Your task to perform on an android device: Open wifi settings Image 0: 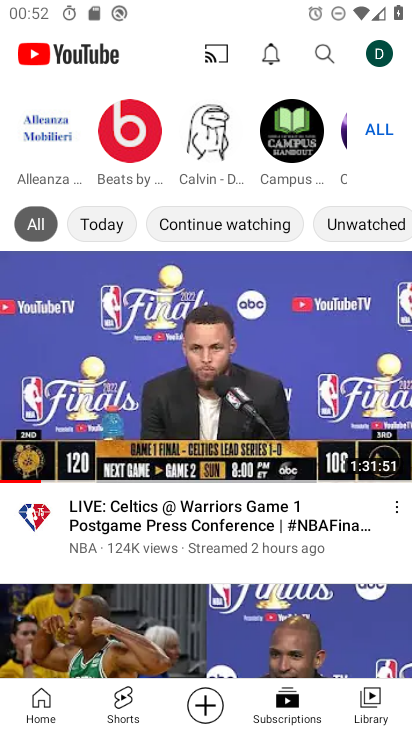
Step 0: press home button
Your task to perform on an android device: Open wifi settings Image 1: 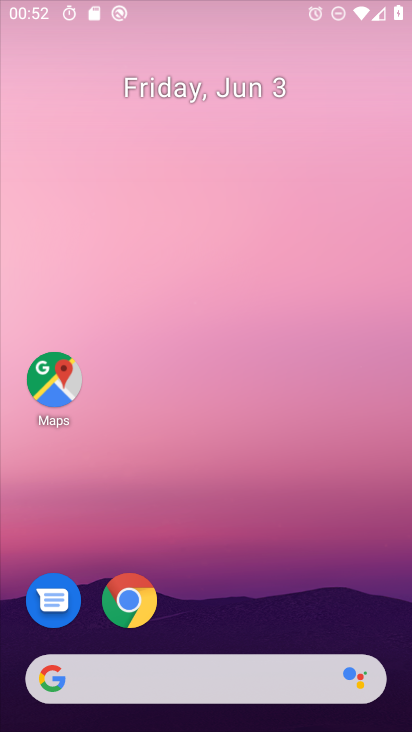
Step 1: drag from (190, 491) to (181, 89)
Your task to perform on an android device: Open wifi settings Image 2: 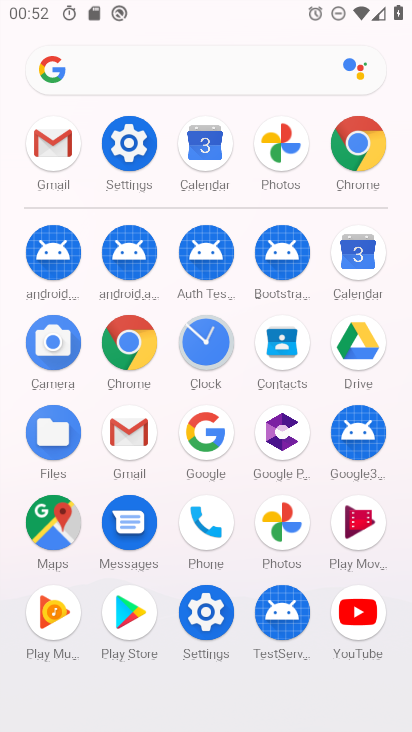
Step 2: click (129, 145)
Your task to perform on an android device: Open wifi settings Image 3: 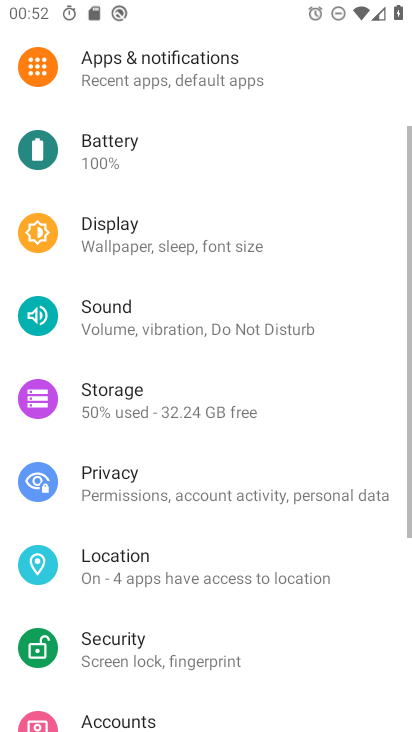
Step 3: drag from (129, 145) to (151, 614)
Your task to perform on an android device: Open wifi settings Image 4: 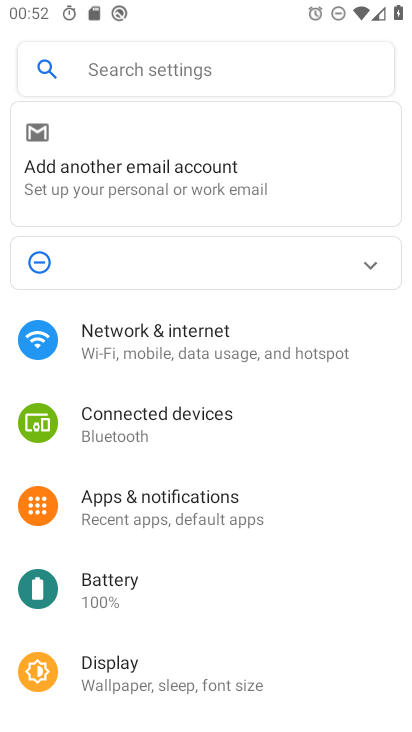
Step 4: click (204, 330)
Your task to perform on an android device: Open wifi settings Image 5: 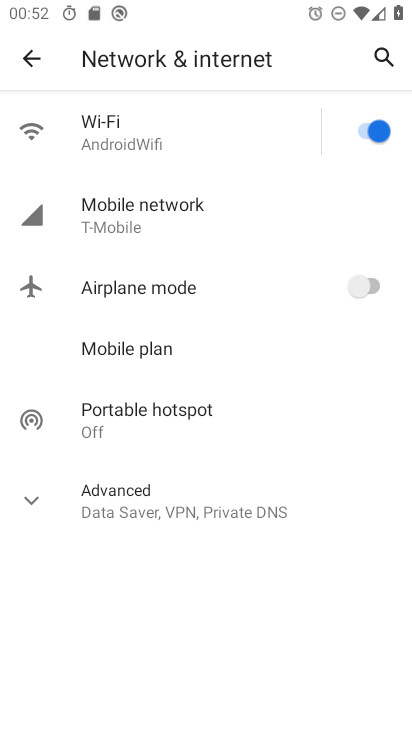
Step 5: click (169, 140)
Your task to perform on an android device: Open wifi settings Image 6: 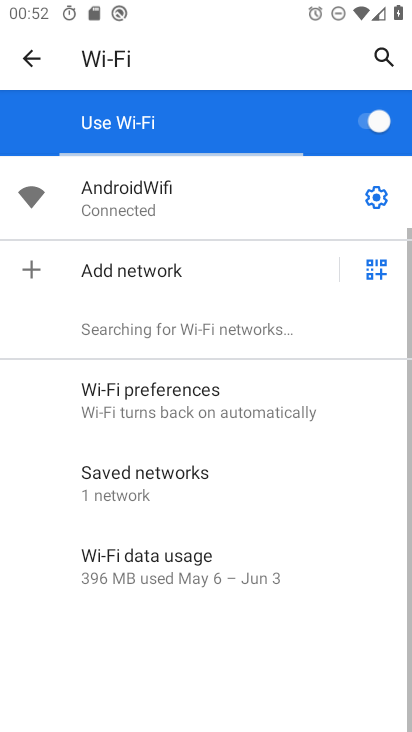
Step 6: click (162, 208)
Your task to perform on an android device: Open wifi settings Image 7: 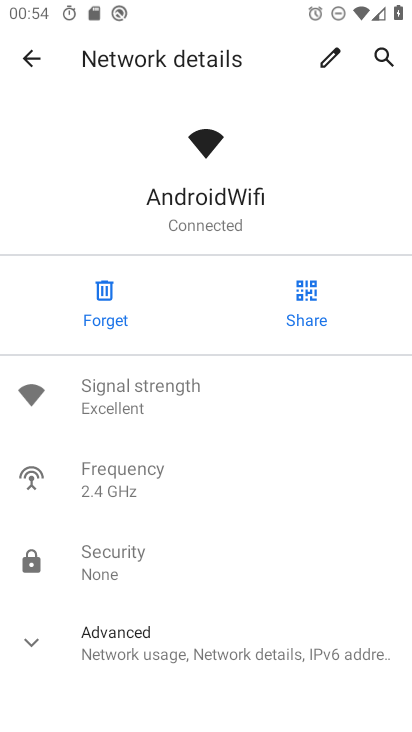
Step 7: task complete